Your task to perform on an android device: toggle translation in the chrome app Image 0: 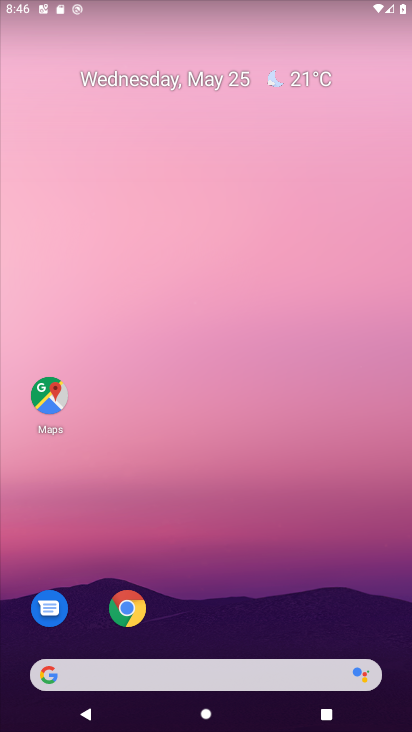
Step 0: click (129, 607)
Your task to perform on an android device: toggle translation in the chrome app Image 1: 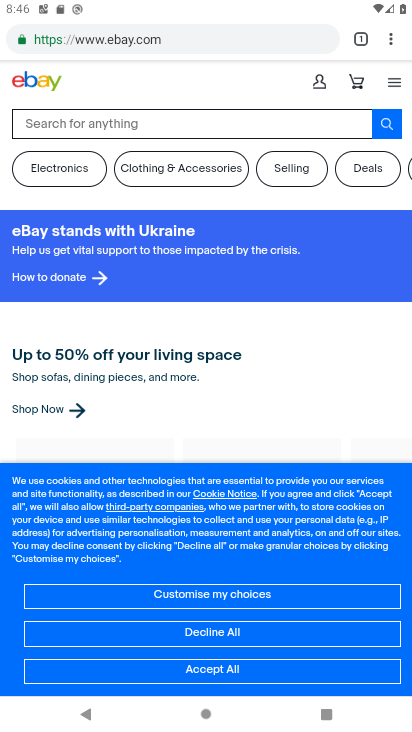
Step 1: click (393, 43)
Your task to perform on an android device: toggle translation in the chrome app Image 2: 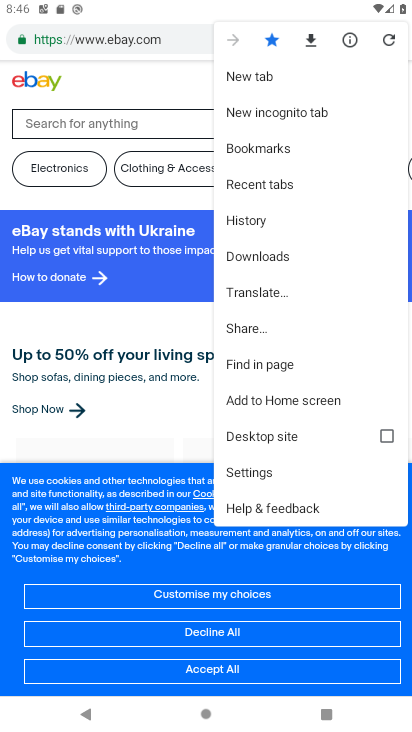
Step 2: click (251, 470)
Your task to perform on an android device: toggle translation in the chrome app Image 3: 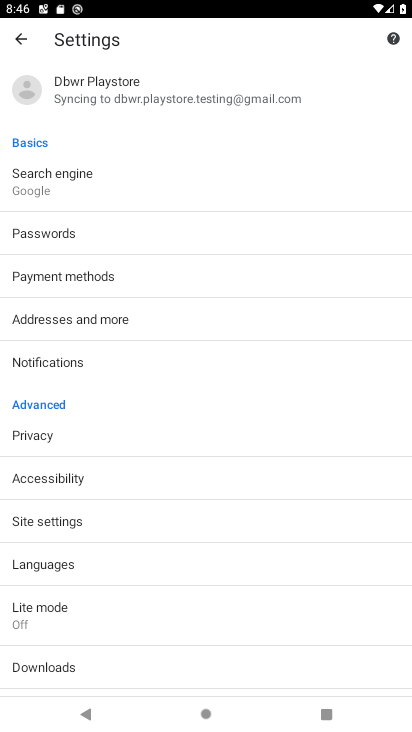
Step 3: click (42, 565)
Your task to perform on an android device: toggle translation in the chrome app Image 4: 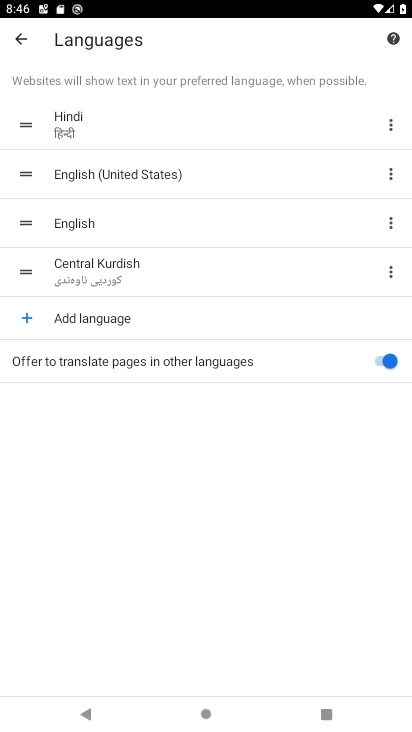
Step 4: click (379, 361)
Your task to perform on an android device: toggle translation in the chrome app Image 5: 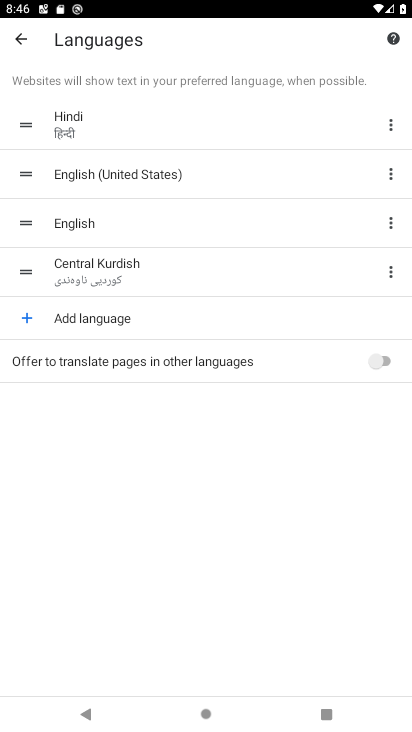
Step 5: task complete